Your task to perform on an android device: Open Yahoo.com Image 0: 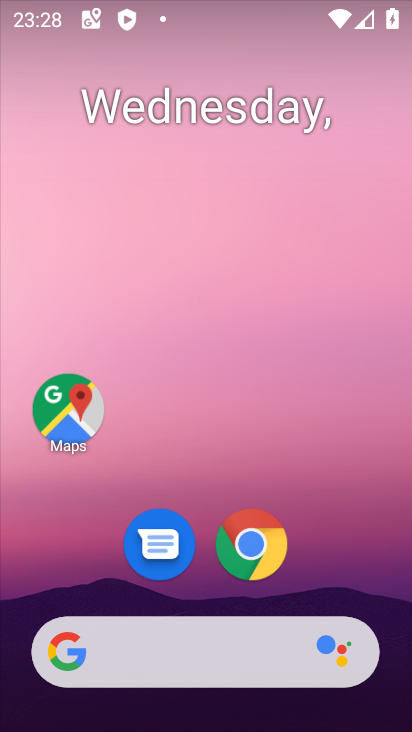
Step 0: click (282, 64)
Your task to perform on an android device: Open Yahoo.com Image 1: 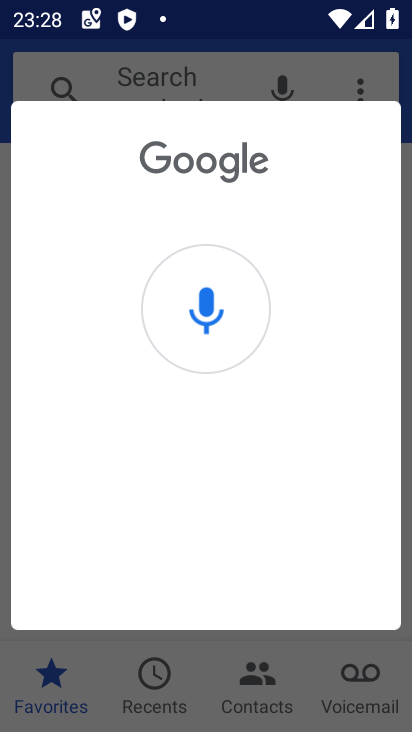
Step 1: press home button
Your task to perform on an android device: Open Yahoo.com Image 2: 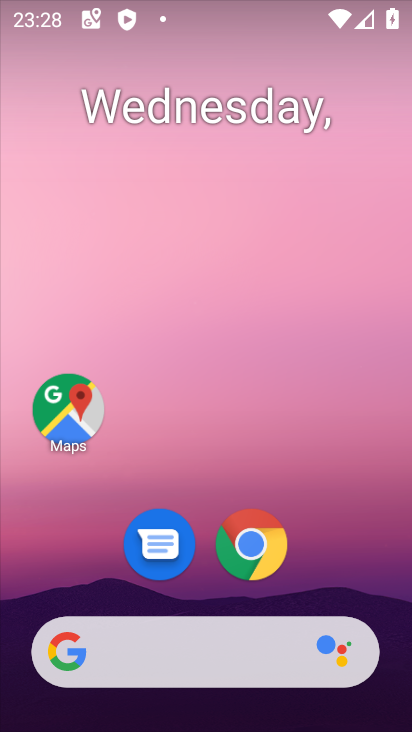
Step 2: click (266, 537)
Your task to perform on an android device: Open Yahoo.com Image 3: 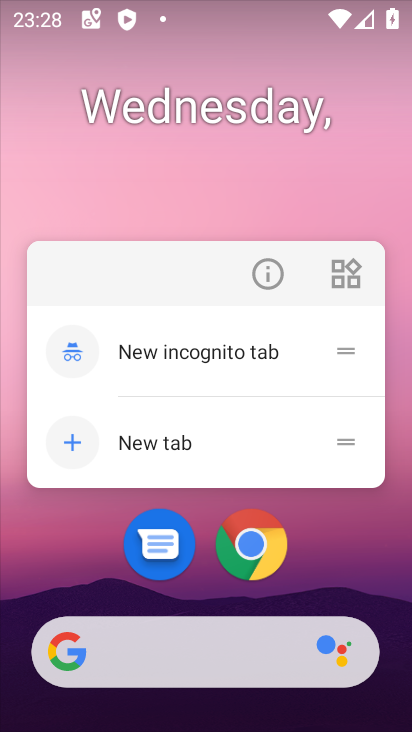
Step 3: click (266, 537)
Your task to perform on an android device: Open Yahoo.com Image 4: 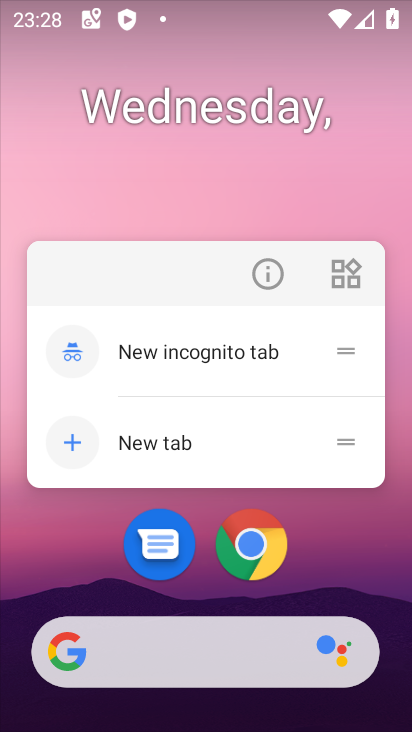
Step 4: click (261, 534)
Your task to perform on an android device: Open Yahoo.com Image 5: 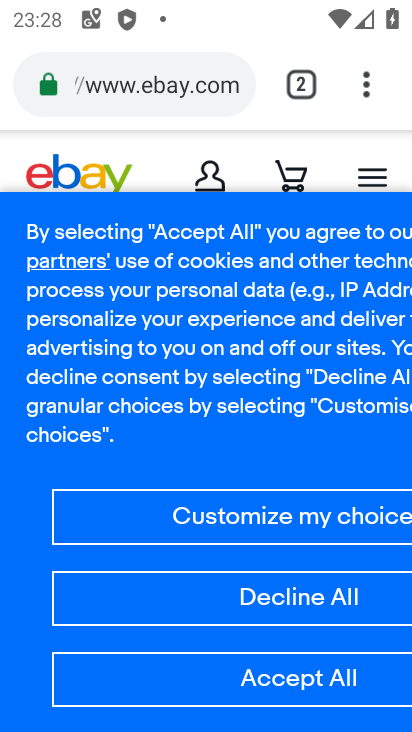
Step 5: drag from (364, 76) to (71, 180)
Your task to perform on an android device: Open Yahoo.com Image 6: 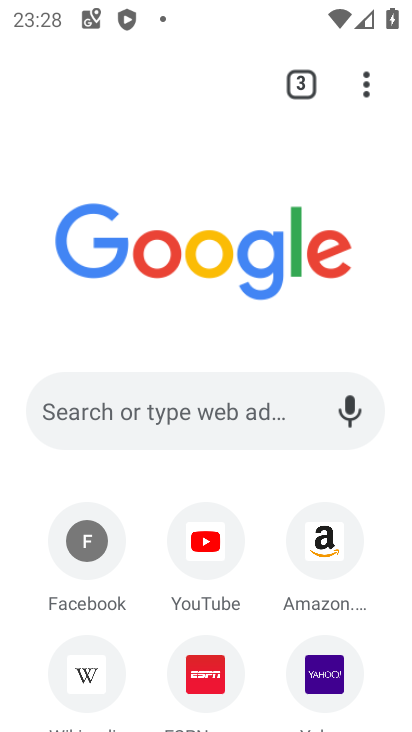
Step 6: drag from (385, 577) to (362, 272)
Your task to perform on an android device: Open Yahoo.com Image 7: 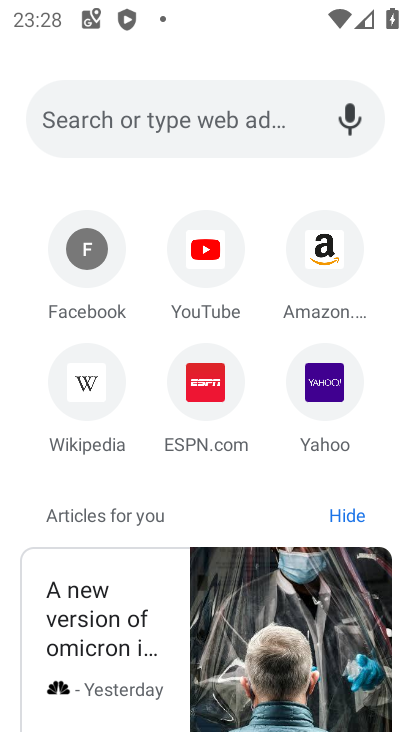
Step 7: click (321, 387)
Your task to perform on an android device: Open Yahoo.com Image 8: 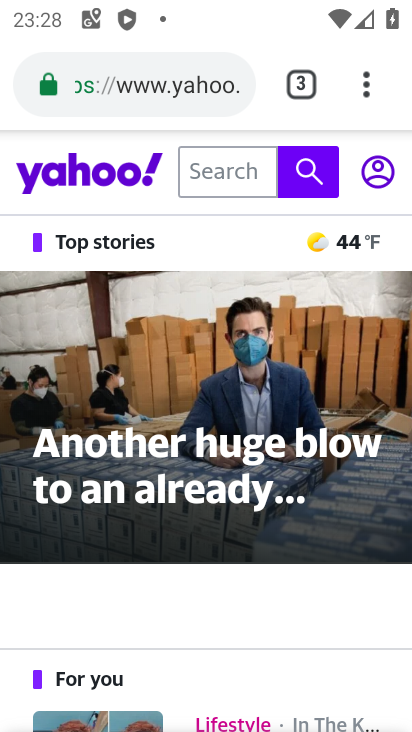
Step 8: task complete